Your task to perform on an android device: Go to eBay Image 0: 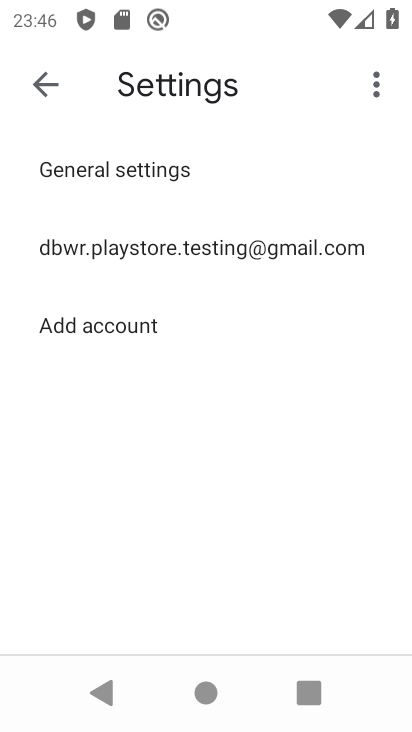
Step 0: press home button
Your task to perform on an android device: Go to eBay Image 1: 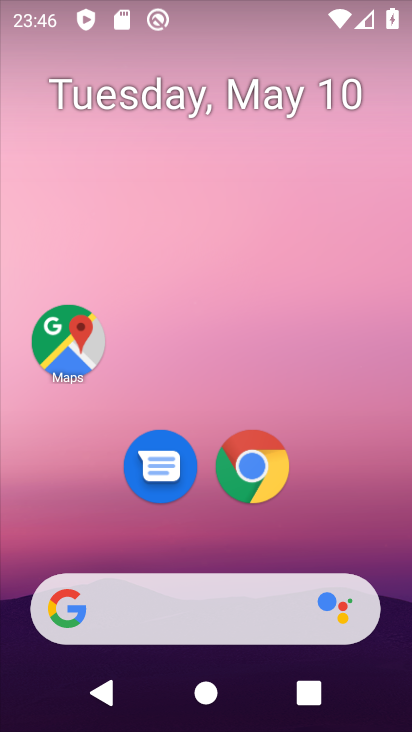
Step 1: drag from (167, 583) to (296, 55)
Your task to perform on an android device: Go to eBay Image 2: 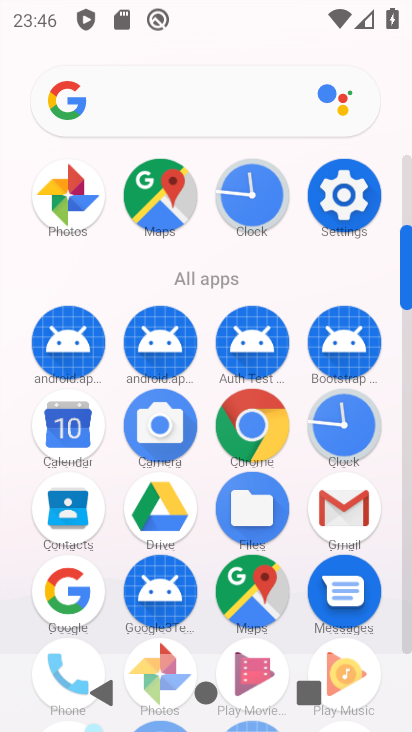
Step 2: click (262, 434)
Your task to perform on an android device: Go to eBay Image 3: 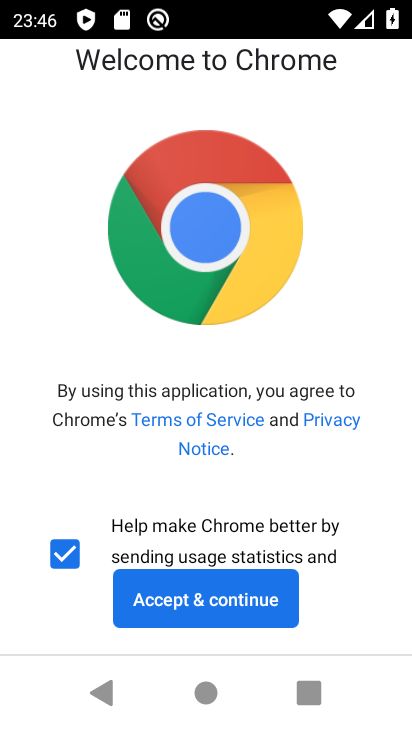
Step 3: click (252, 598)
Your task to perform on an android device: Go to eBay Image 4: 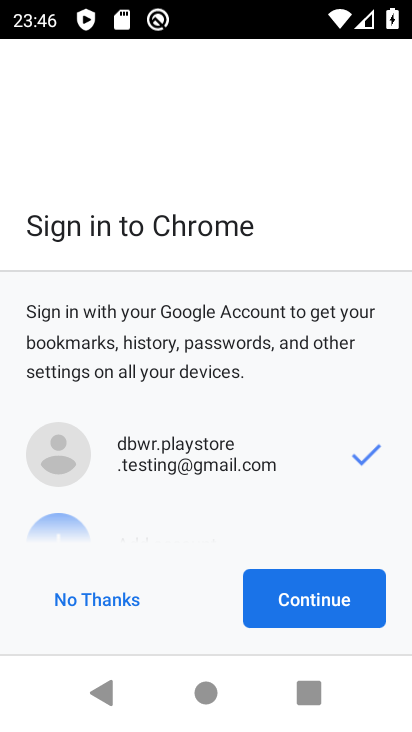
Step 4: click (285, 591)
Your task to perform on an android device: Go to eBay Image 5: 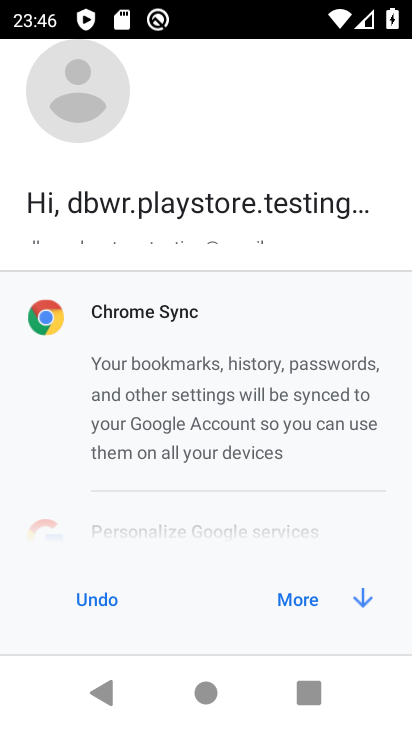
Step 5: click (305, 608)
Your task to perform on an android device: Go to eBay Image 6: 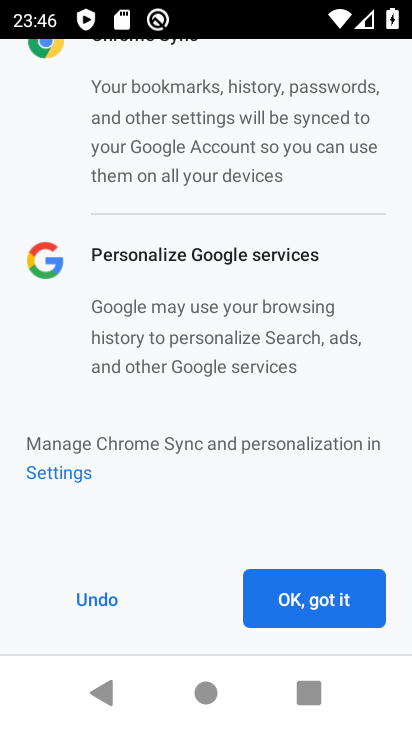
Step 6: click (305, 608)
Your task to perform on an android device: Go to eBay Image 7: 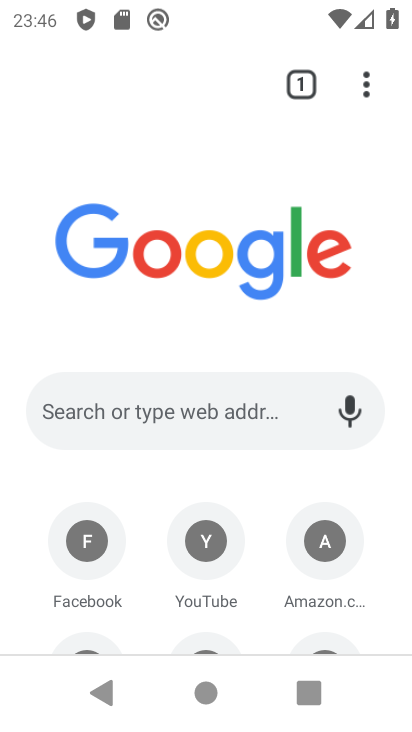
Step 7: drag from (242, 625) to (315, 374)
Your task to perform on an android device: Go to eBay Image 8: 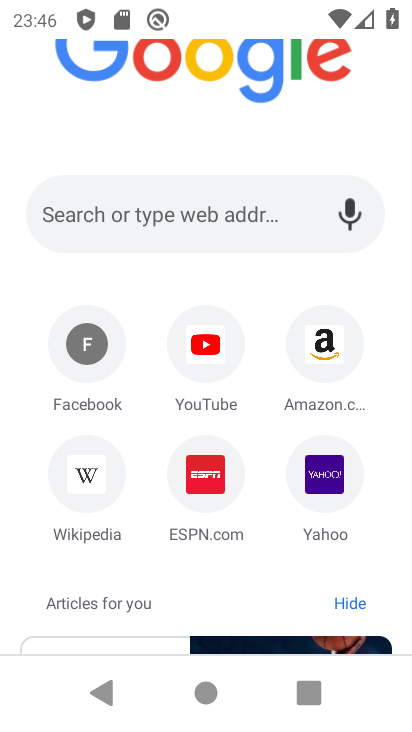
Step 8: click (210, 222)
Your task to perform on an android device: Go to eBay Image 9: 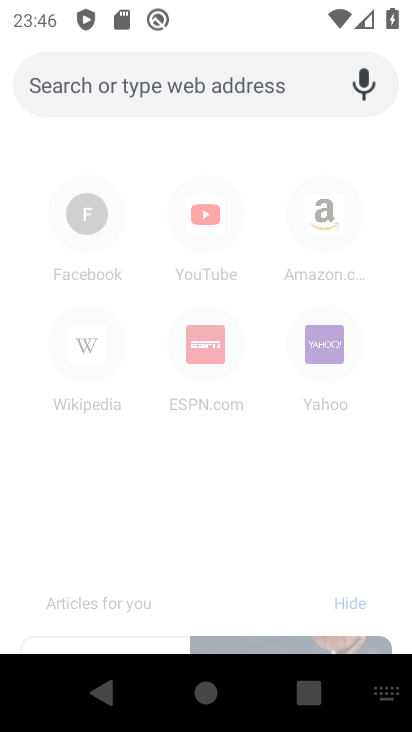
Step 9: type "eBay.com"
Your task to perform on an android device: Go to eBay Image 10: 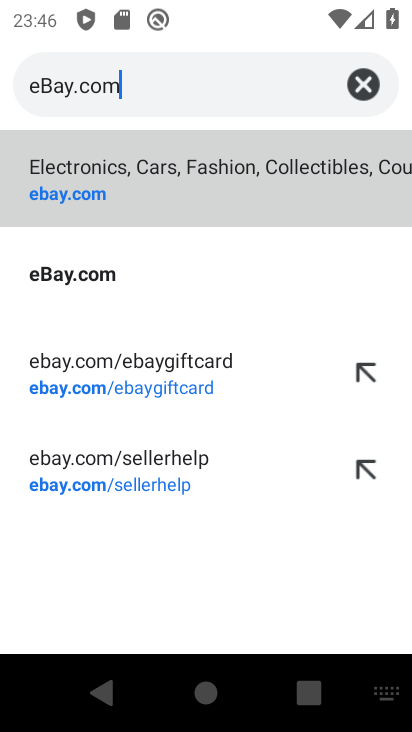
Step 10: click (162, 288)
Your task to perform on an android device: Go to eBay Image 11: 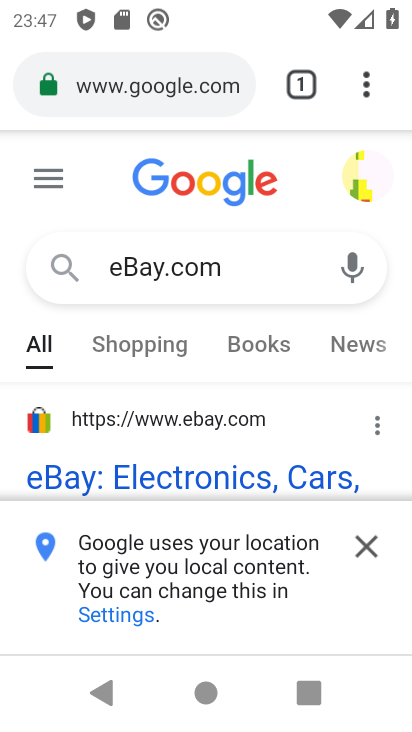
Step 11: click (377, 534)
Your task to perform on an android device: Go to eBay Image 12: 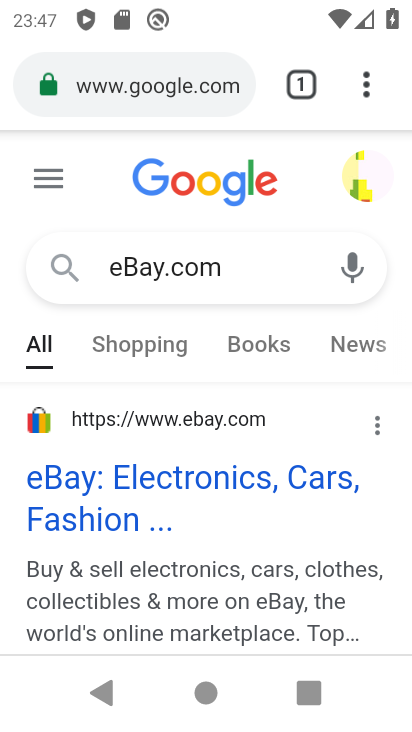
Step 12: click (273, 505)
Your task to perform on an android device: Go to eBay Image 13: 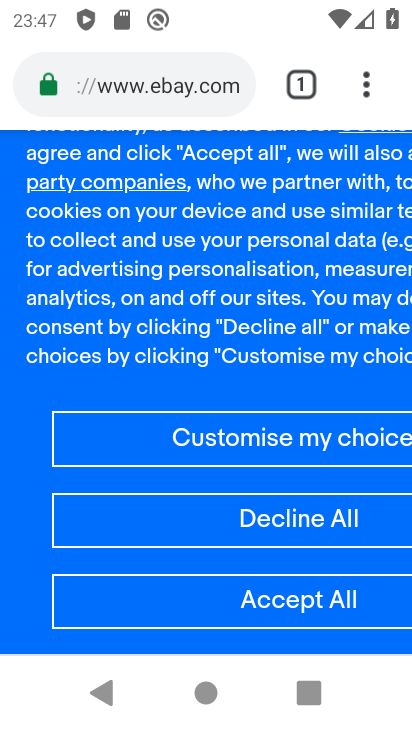
Step 13: click (274, 604)
Your task to perform on an android device: Go to eBay Image 14: 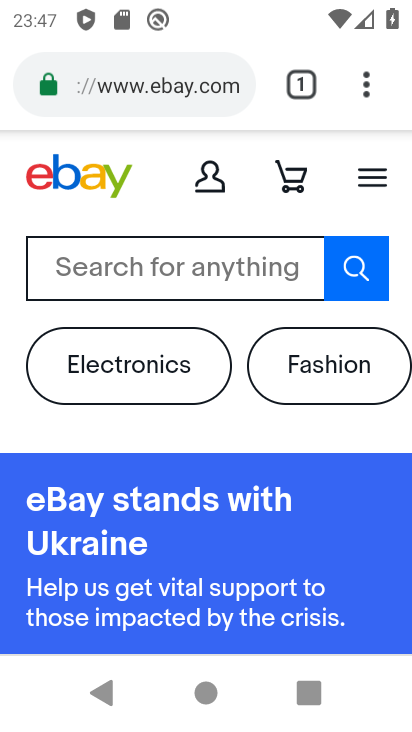
Step 14: task complete